Your task to perform on an android device: What is the news today? Image 0: 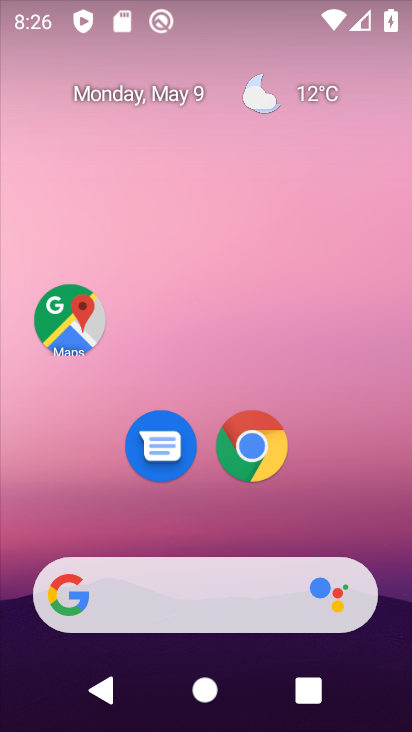
Step 0: drag from (3, 186) to (407, 424)
Your task to perform on an android device: What is the news today? Image 1: 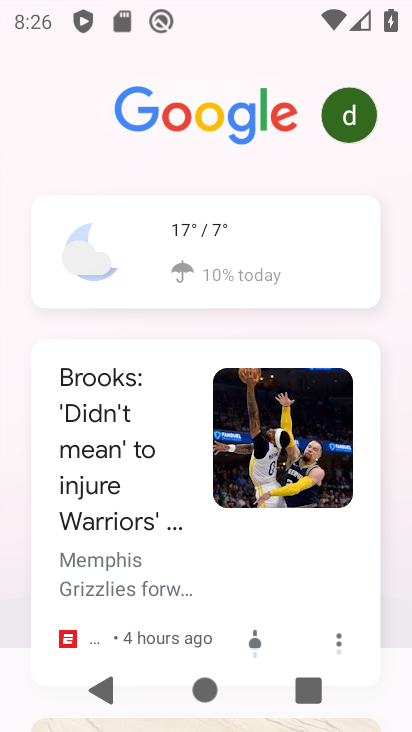
Step 1: task complete